Your task to perform on an android device: open the mobile data screen to see how much data has been used Image 0: 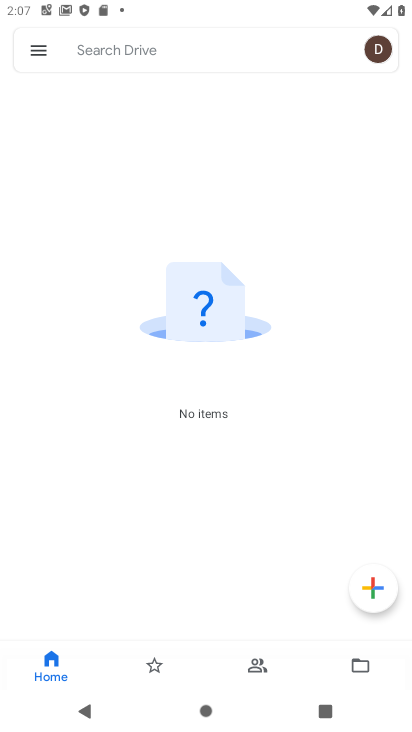
Step 0: press home button
Your task to perform on an android device: open the mobile data screen to see how much data has been used Image 1: 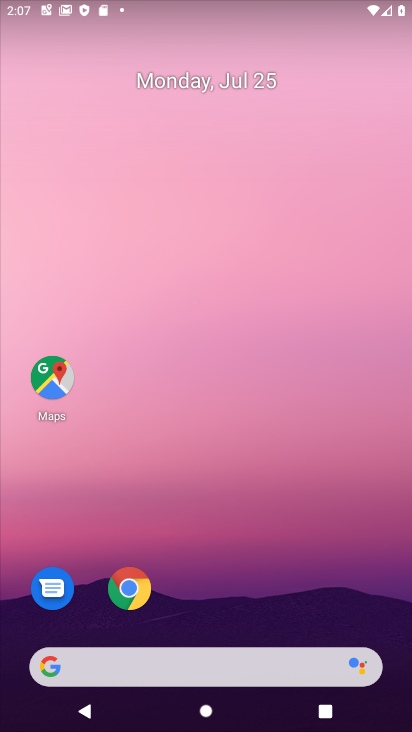
Step 1: drag from (211, 567) to (204, 72)
Your task to perform on an android device: open the mobile data screen to see how much data has been used Image 2: 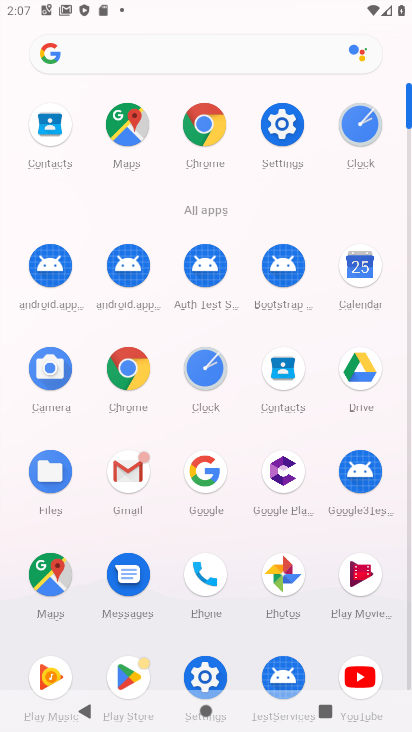
Step 2: click (261, 128)
Your task to perform on an android device: open the mobile data screen to see how much data has been used Image 3: 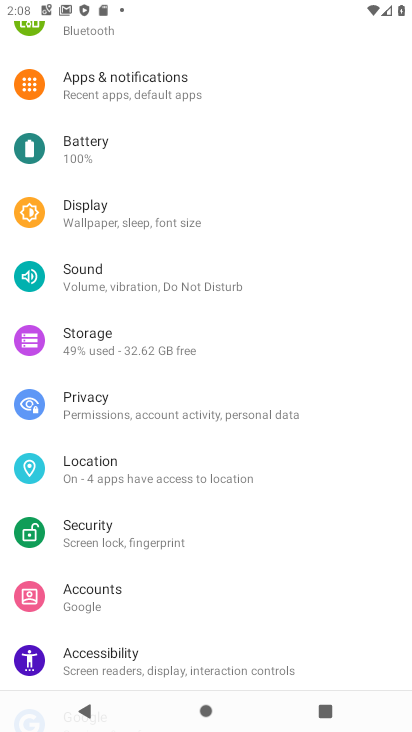
Step 3: drag from (82, 156) to (93, 451)
Your task to perform on an android device: open the mobile data screen to see how much data has been used Image 4: 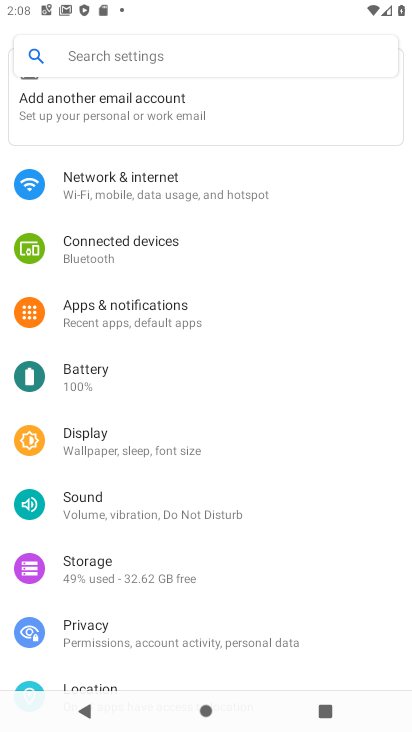
Step 4: click (165, 200)
Your task to perform on an android device: open the mobile data screen to see how much data has been used Image 5: 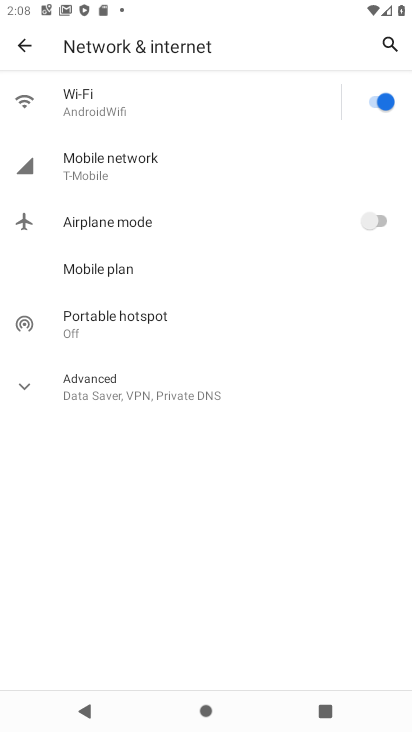
Step 5: click (151, 176)
Your task to perform on an android device: open the mobile data screen to see how much data has been used Image 6: 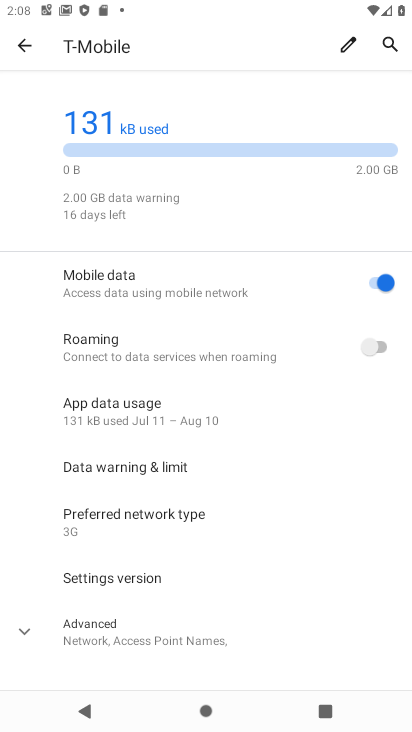
Step 6: click (186, 407)
Your task to perform on an android device: open the mobile data screen to see how much data has been used Image 7: 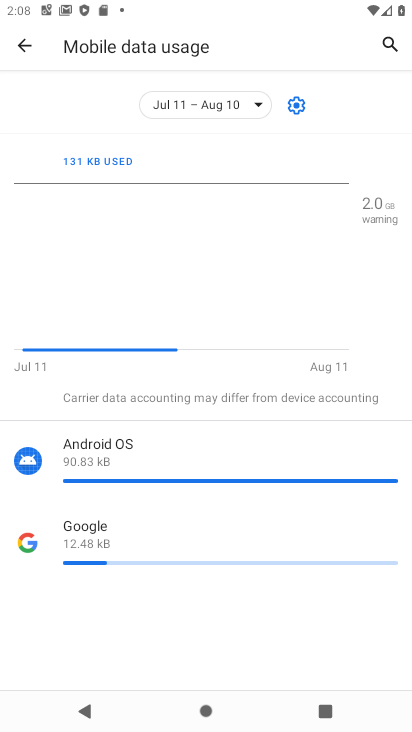
Step 7: task complete